Your task to perform on an android device: What time is it? Image 0: 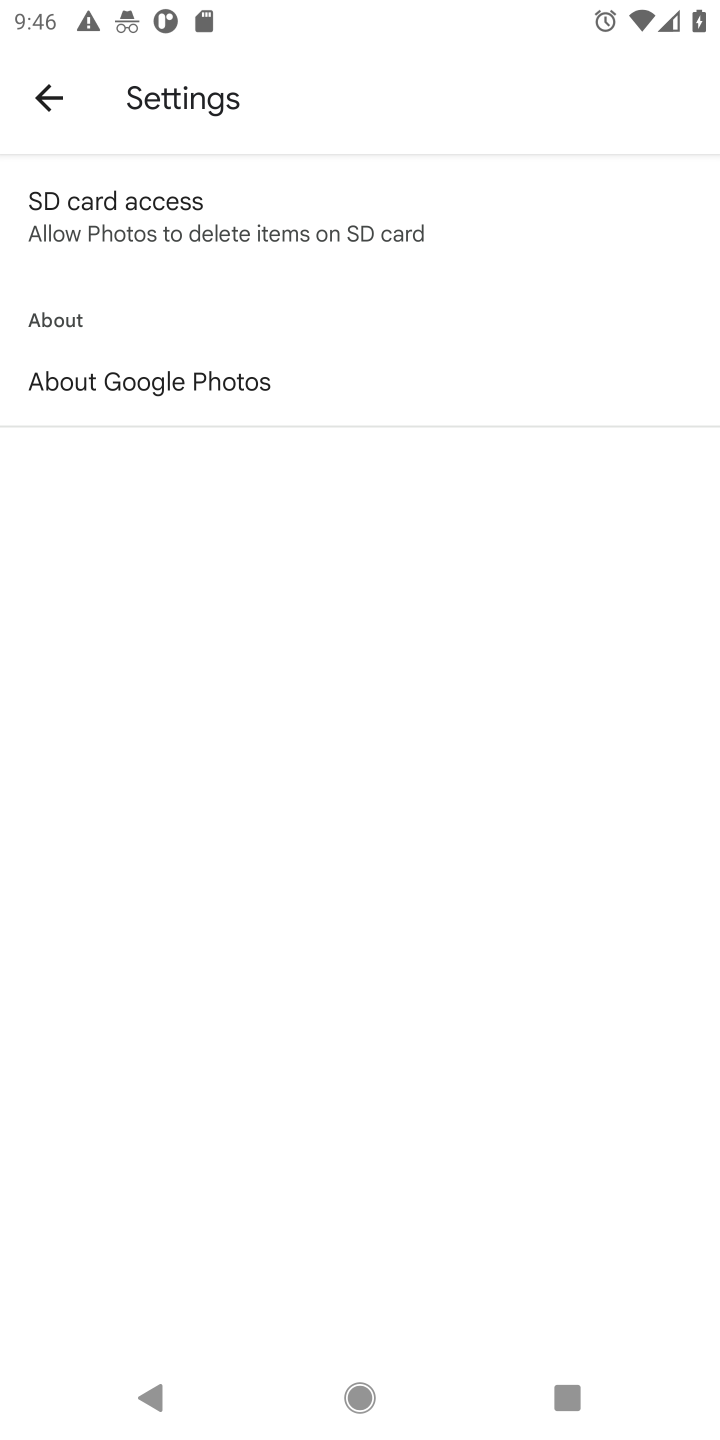
Step 0: press home button
Your task to perform on an android device: What time is it? Image 1: 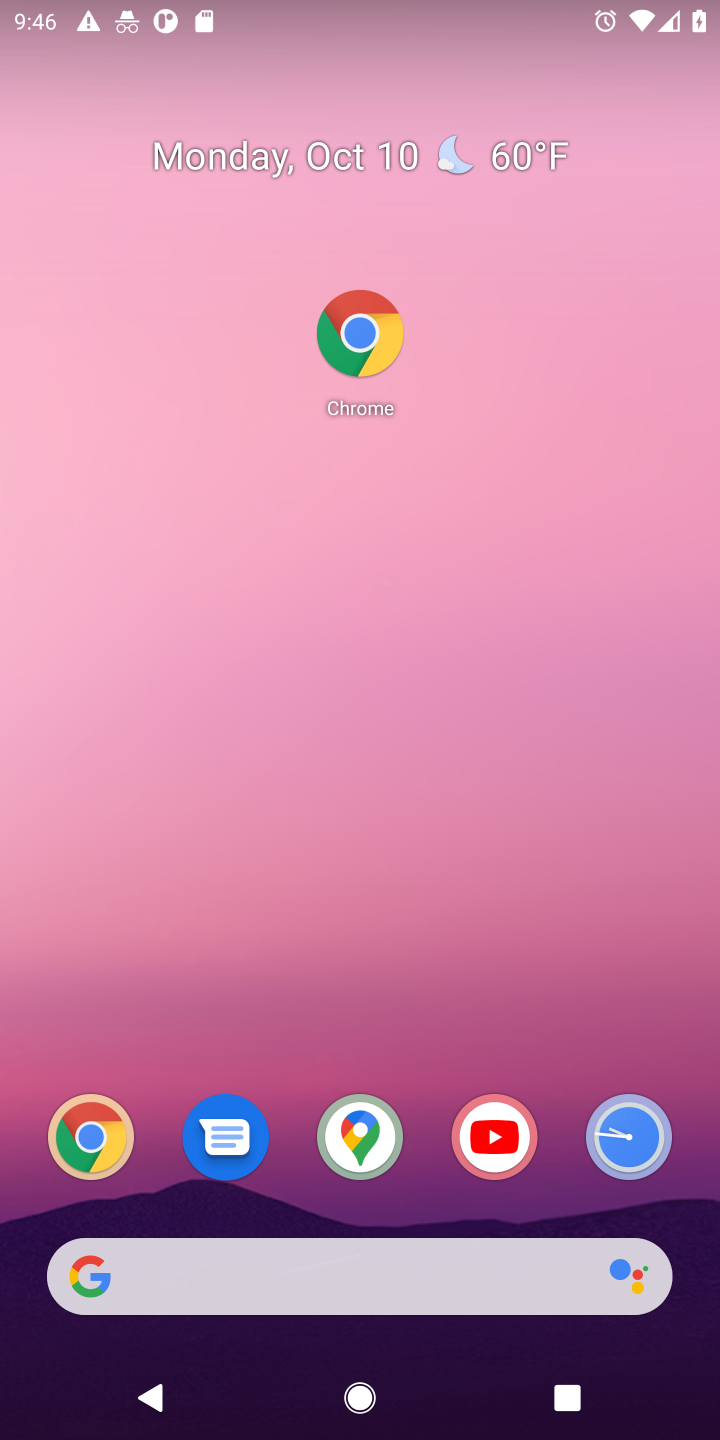
Step 1: click (627, 1147)
Your task to perform on an android device: What time is it? Image 2: 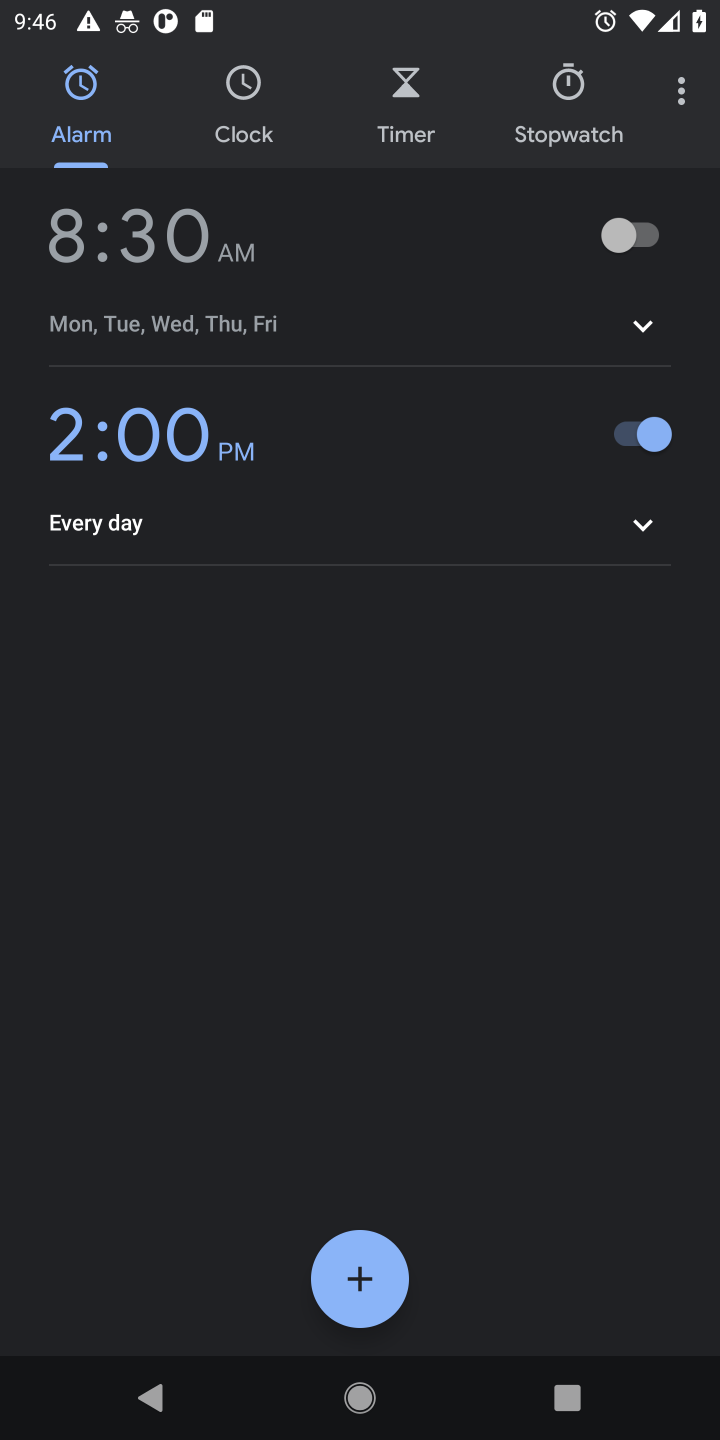
Step 2: click (240, 87)
Your task to perform on an android device: What time is it? Image 3: 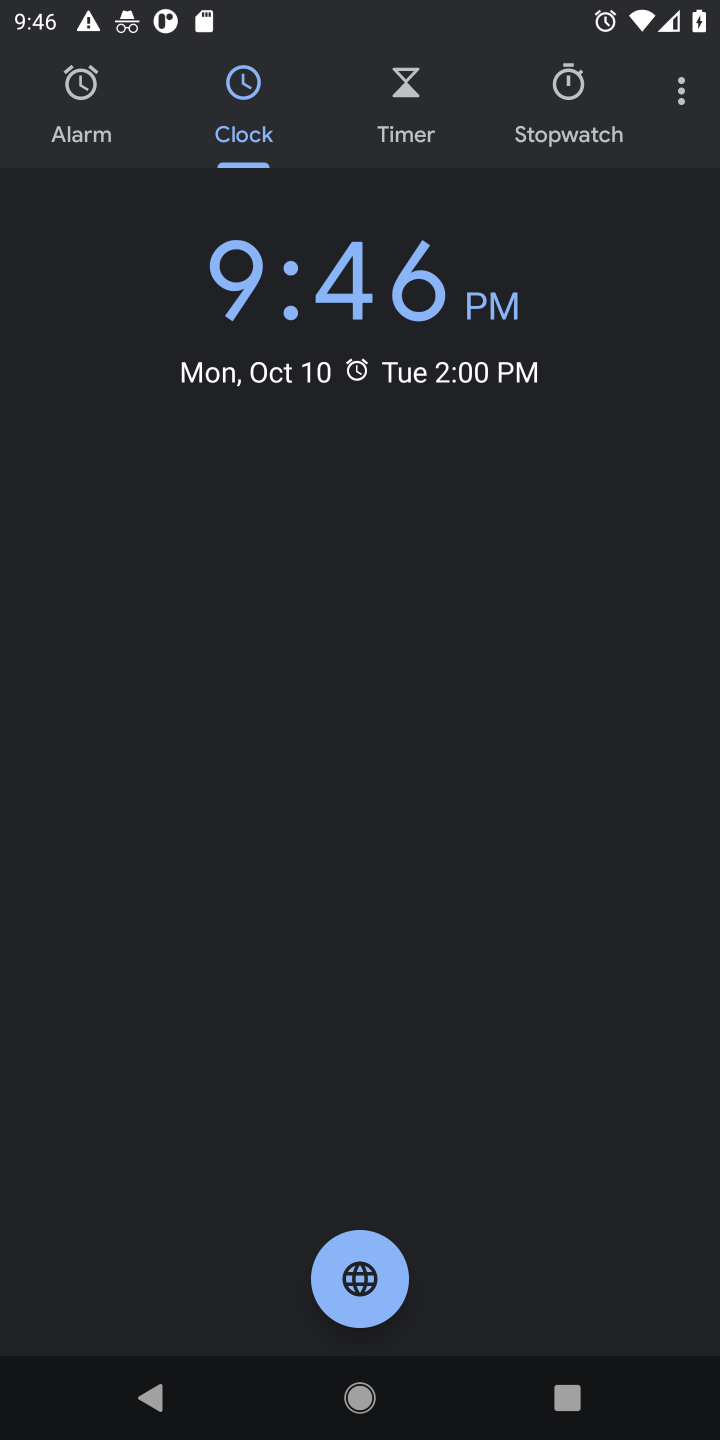
Step 3: task complete